Your task to perform on an android device: When is my next meeting? Image 0: 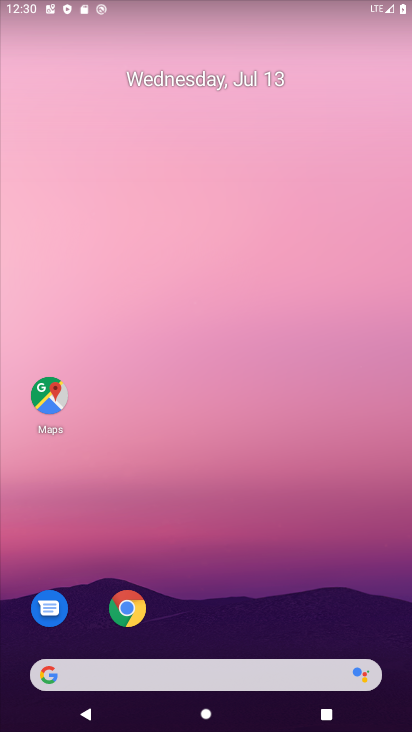
Step 0: drag from (212, 610) to (315, 49)
Your task to perform on an android device: When is my next meeting? Image 1: 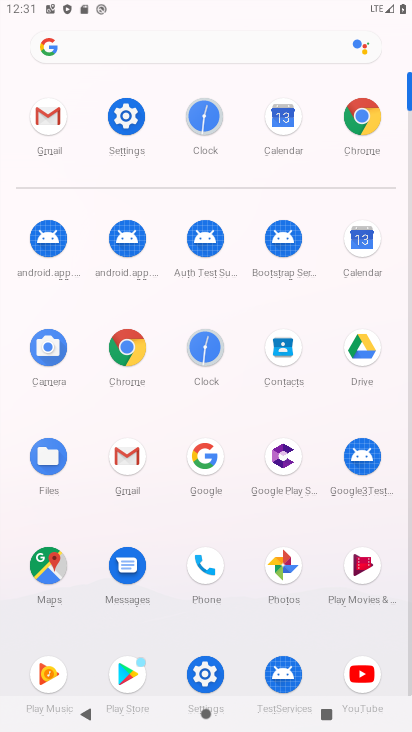
Step 1: click (356, 249)
Your task to perform on an android device: When is my next meeting? Image 2: 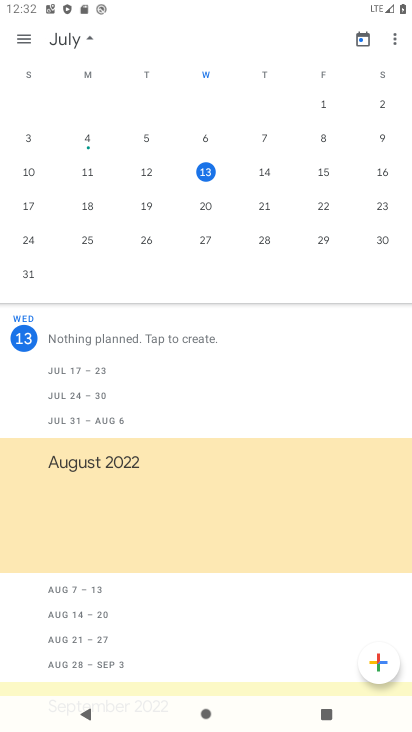
Step 2: task complete